Your task to perform on an android device: change text size in settings app Image 0: 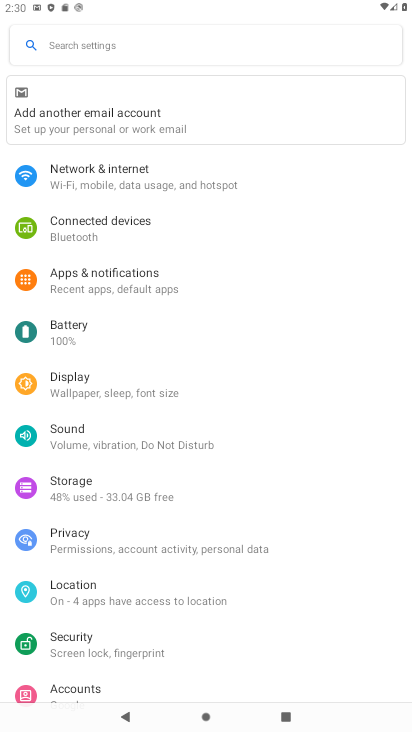
Step 0: press home button
Your task to perform on an android device: change text size in settings app Image 1: 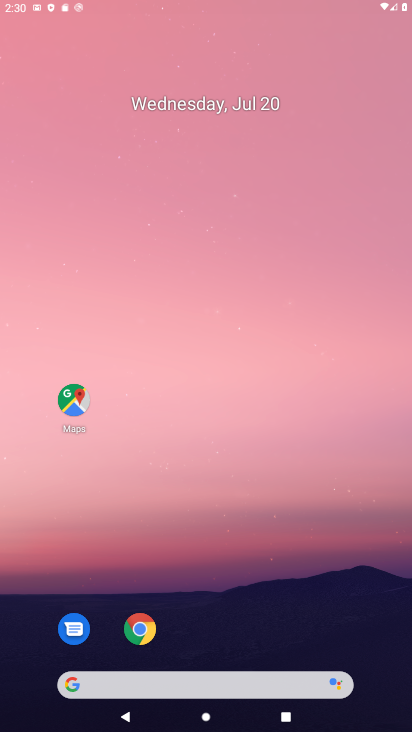
Step 1: drag from (310, 572) to (234, 141)
Your task to perform on an android device: change text size in settings app Image 2: 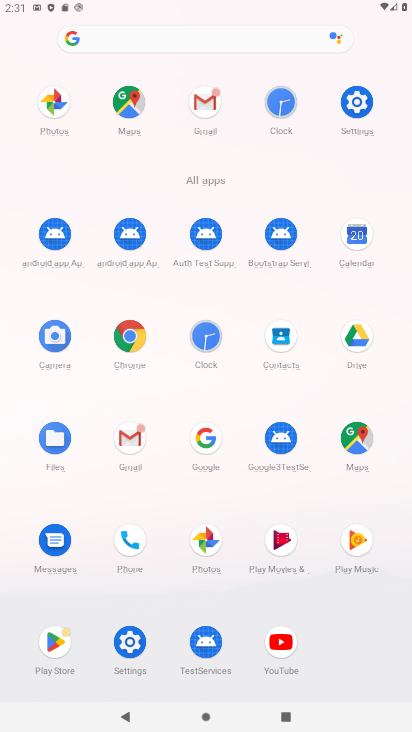
Step 2: click (114, 657)
Your task to perform on an android device: change text size in settings app Image 3: 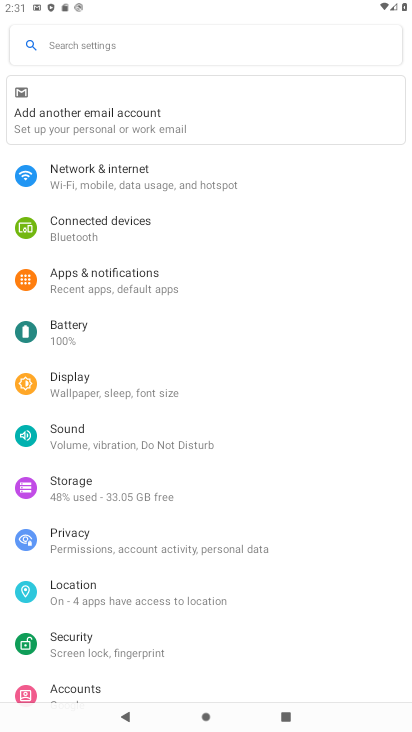
Step 3: click (49, 410)
Your task to perform on an android device: change text size in settings app Image 4: 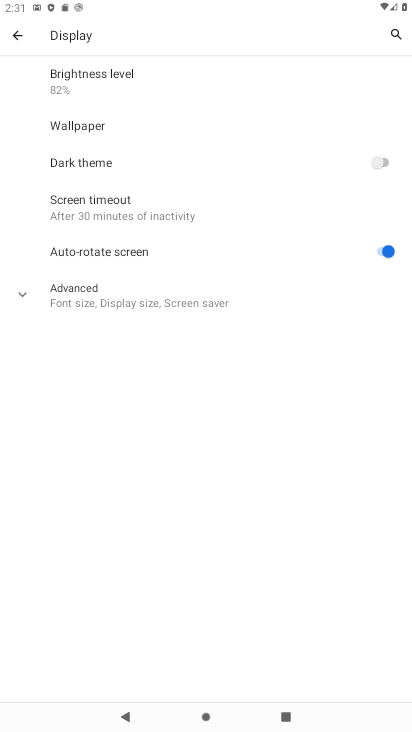
Step 4: click (120, 286)
Your task to perform on an android device: change text size in settings app Image 5: 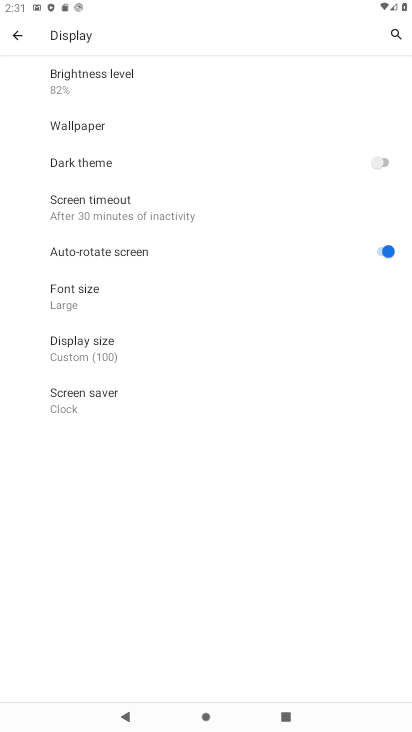
Step 5: click (120, 286)
Your task to perform on an android device: change text size in settings app Image 6: 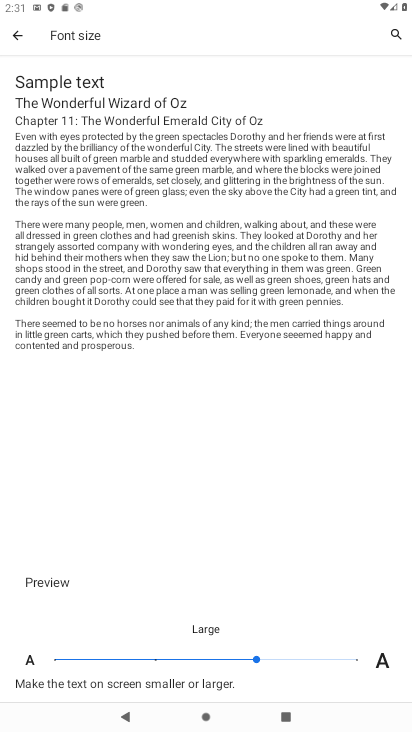
Step 6: click (378, 655)
Your task to perform on an android device: change text size in settings app Image 7: 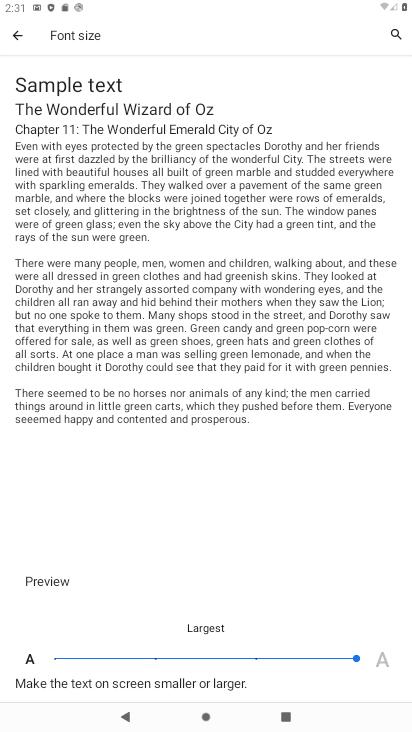
Step 7: click (378, 655)
Your task to perform on an android device: change text size in settings app Image 8: 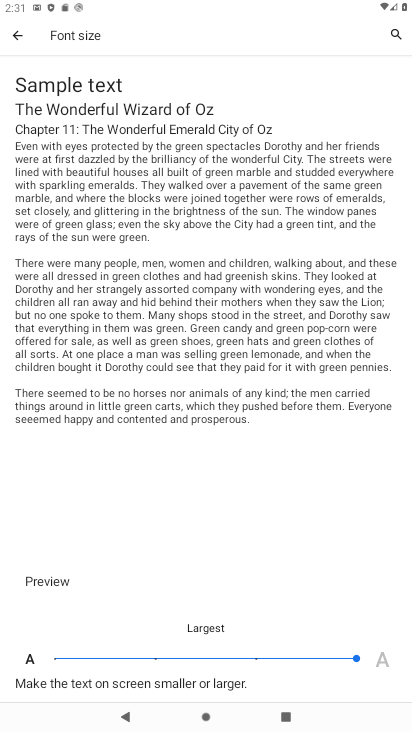
Step 8: task complete